Your task to perform on an android device: Show me productivity apps on the Play Store Image 0: 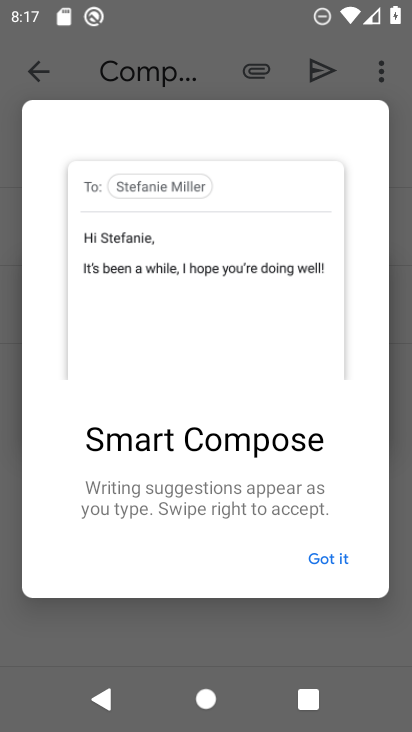
Step 0: press home button
Your task to perform on an android device: Show me productivity apps on the Play Store Image 1: 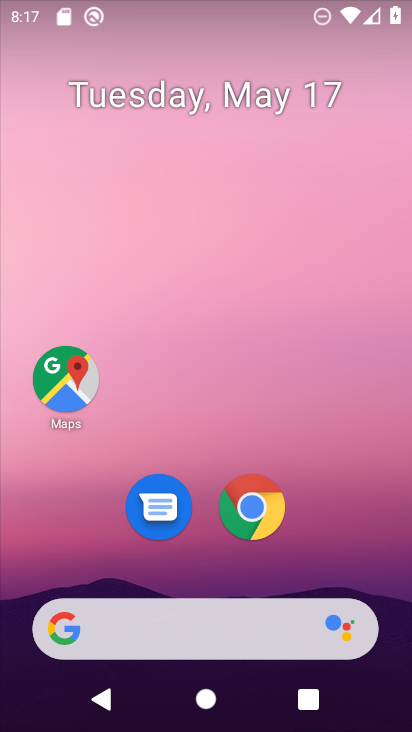
Step 1: drag from (352, 588) to (345, 29)
Your task to perform on an android device: Show me productivity apps on the Play Store Image 2: 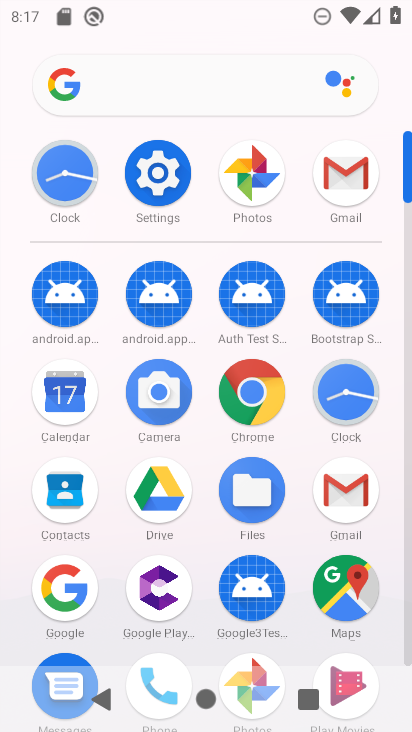
Step 2: drag from (410, 486) to (404, 423)
Your task to perform on an android device: Show me productivity apps on the Play Store Image 3: 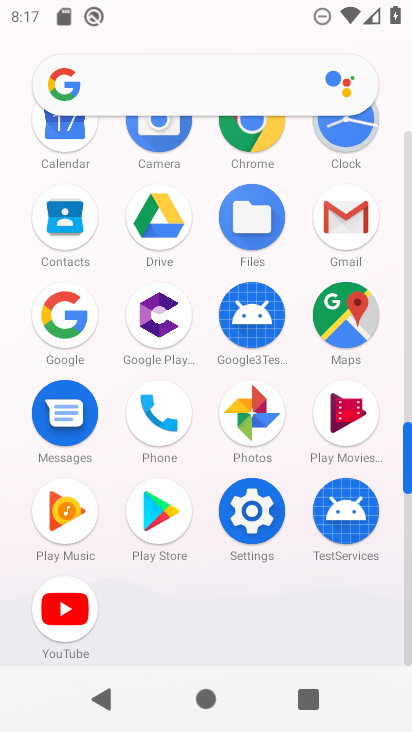
Step 3: click (158, 531)
Your task to perform on an android device: Show me productivity apps on the Play Store Image 4: 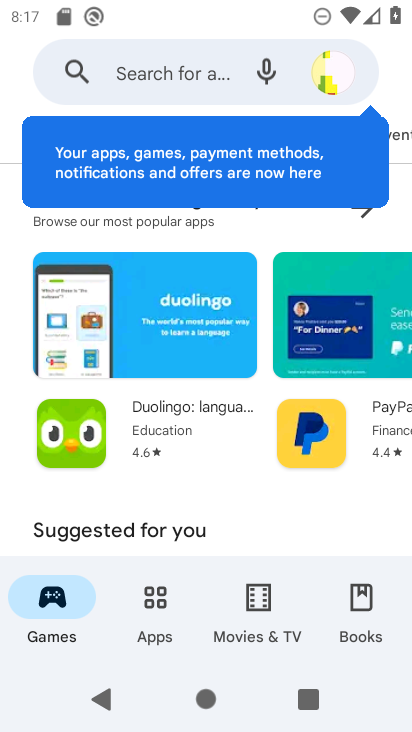
Step 4: click (161, 624)
Your task to perform on an android device: Show me productivity apps on the Play Store Image 5: 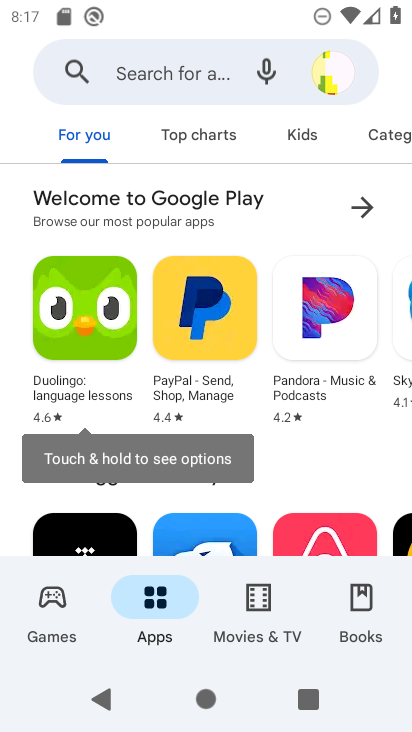
Step 5: drag from (278, 142) to (0, 227)
Your task to perform on an android device: Show me productivity apps on the Play Store Image 6: 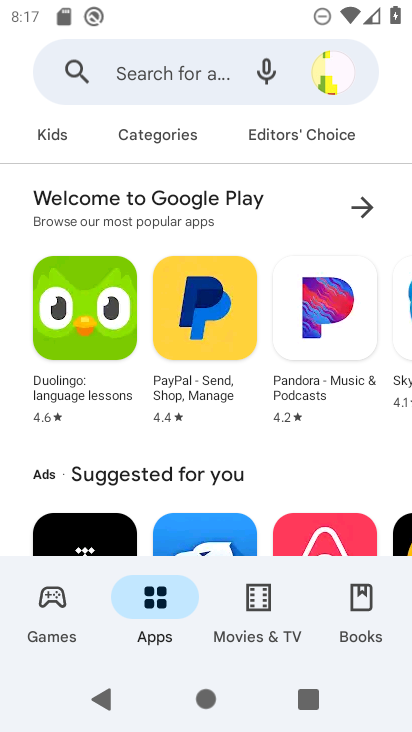
Step 6: drag from (293, 141) to (12, 184)
Your task to perform on an android device: Show me productivity apps on the Play Store Image 7: 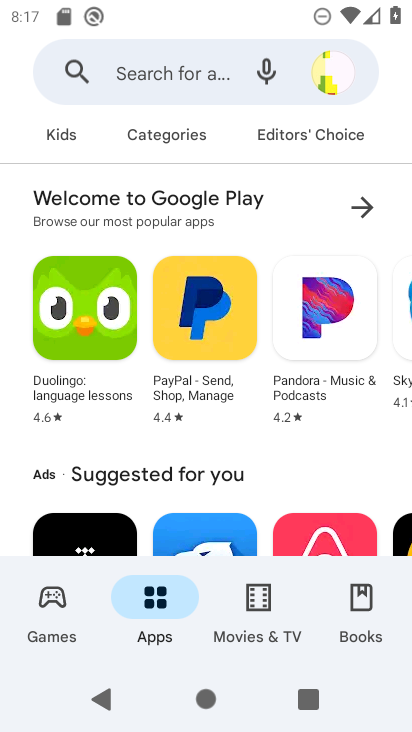
Step 7: click (152, 138)
Your task to perform on an android device: Show me productivity apps on the Play Store Image 8: 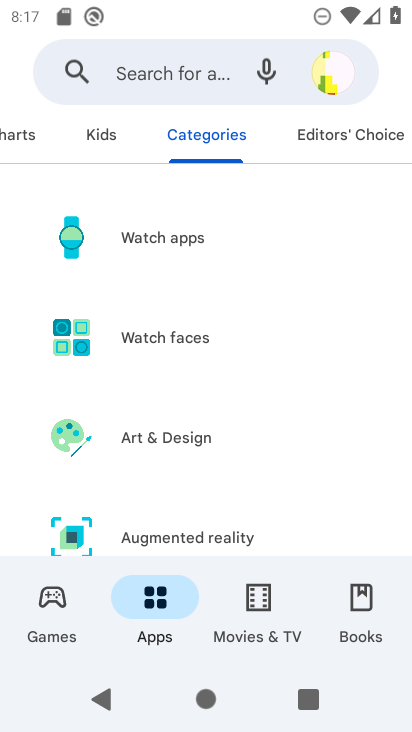
Step 8: drag from (305, 512) to (255, 98)
Your task to perform on an android device: Show me productivity apps on the Play Store Image 9: 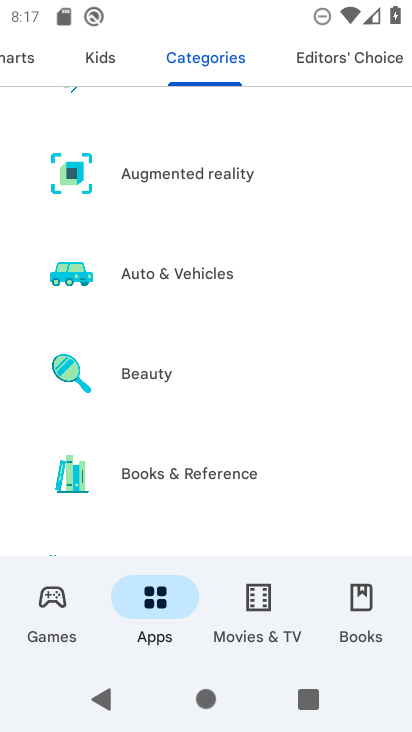
Step 9: drag from (285, 444) to (216, 85)
Your task to perform on an android device: Show me productivity apps on the Play Store Image 10: 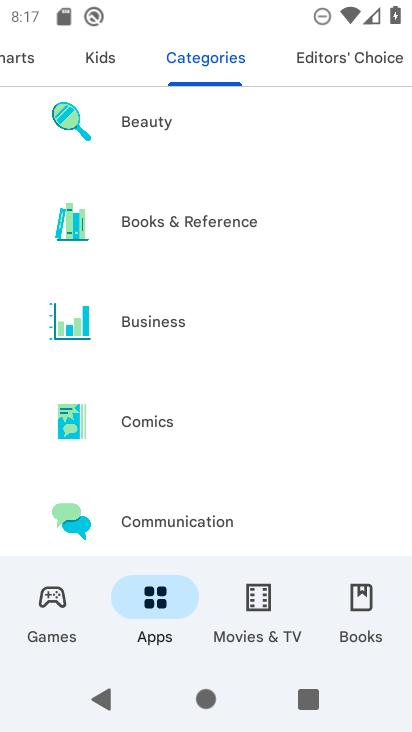
Step 10: drag from (250, 439) to (236, 87)
Your task to perform on an android device: Show me productivity apps on the Play Store Image 11: 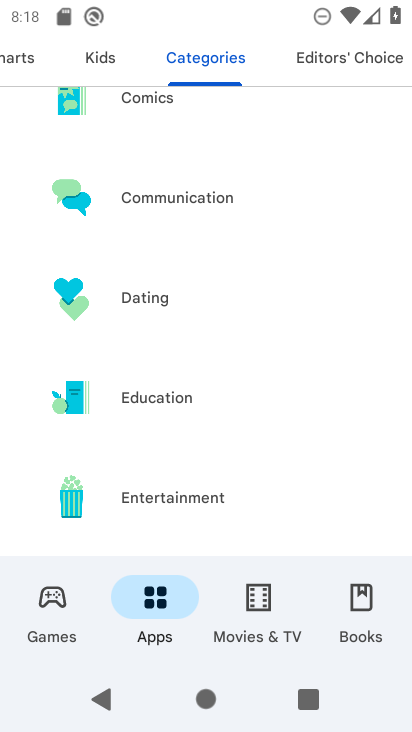
Step 11: drag from (282, 480) to (240, 103)
Your task to perform on an android device: Show me productivity apps on the Play Store Image 12: 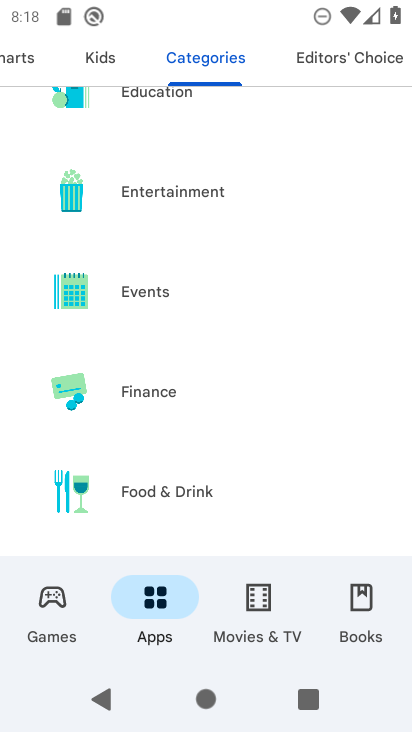
Step 12: drag from (241, 474) to (196, 127)
Your task to perform on an android device: Show me productivity apps on the Play Store Image 13: 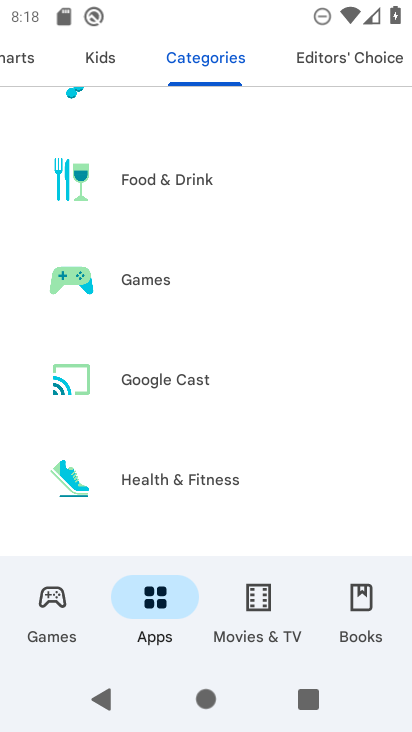
Step 13: drag from (271, 487) to (260, 130)
Your task to perform on an android device: Show me productivity apps on the Play Store Image 14: 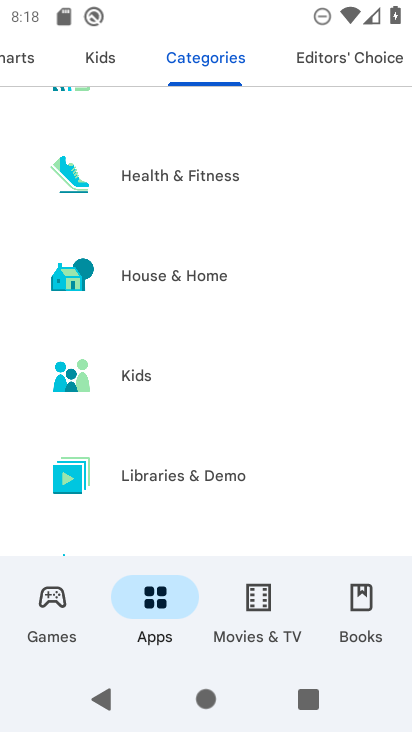
Step 14: drag from (276, 456) to (220, 33)
Your task to perform on an android device: Show me productivity apps on the Play Store Image 15: 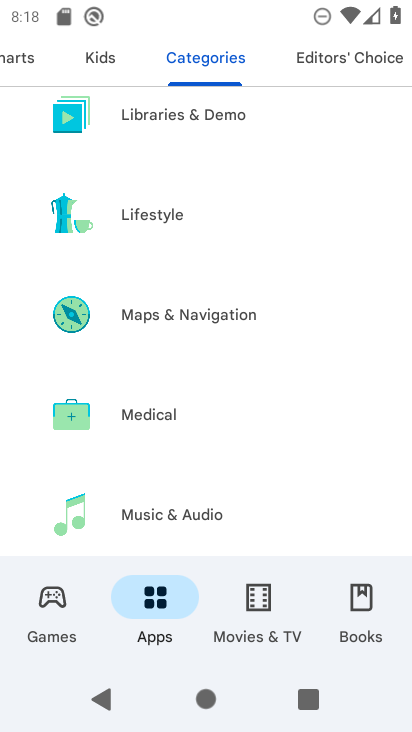
Step 15: drag from (311, 505) to (309, 107)
Your task to perform on an android device: Show me productivity apps on the Play Store Image 16: 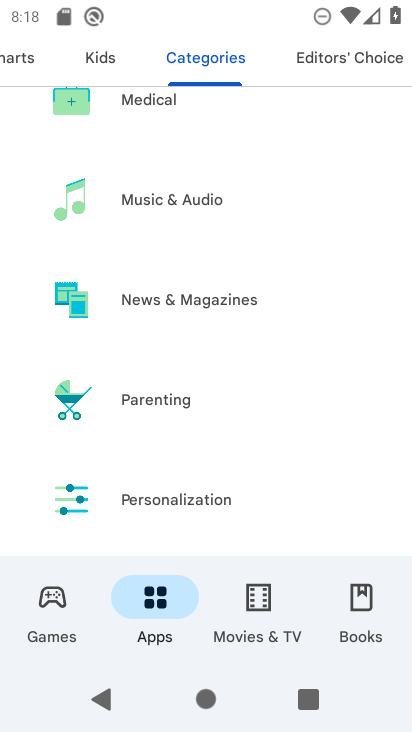
Step 16: drag from (277, 446) to (261, 165)
Your task to perform on an android device: Show me productivity apps on the Play Store Image 17: 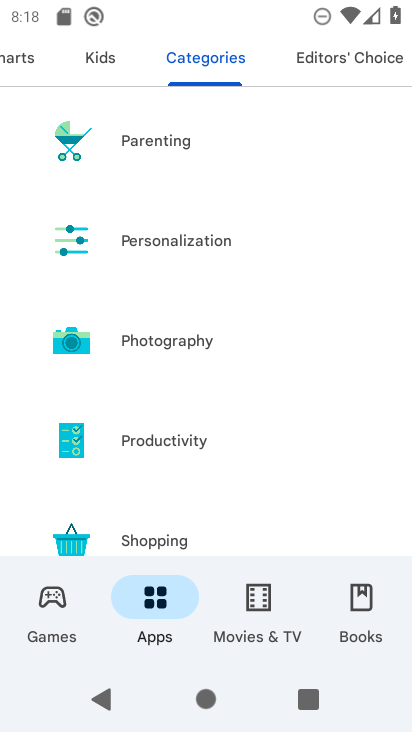
Step 17: click (151, 438)
Your task to perform on an android device: Show me productivity apps on the Play Store Image 18: 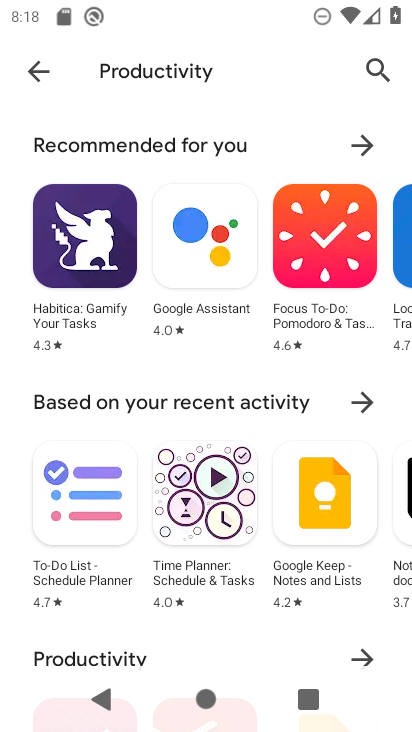
Step 18: task complete